Your task to perform on an android device: Search for vegetarian restaurants on Maps Image 0: 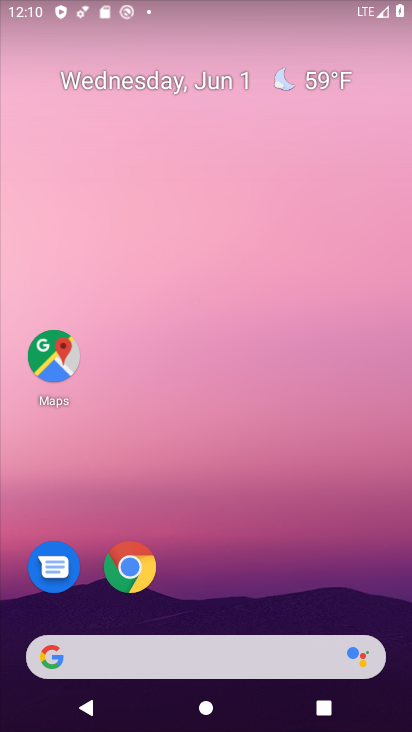
Step 0: click (47, 341)
Your task to perform on an android device: Search for vegetarian restaurants on Maps Image 1: 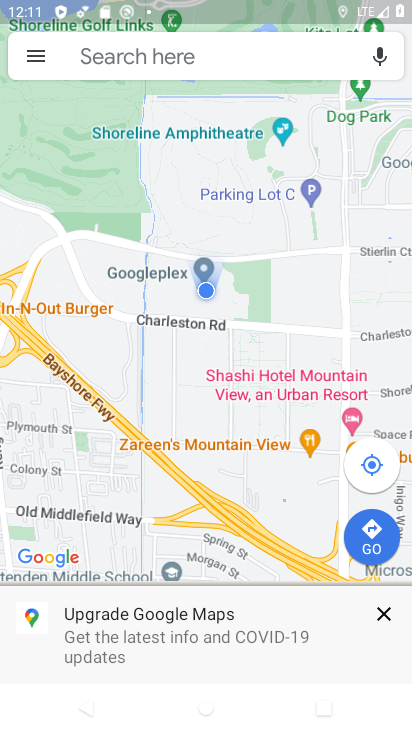
Step 1: click (137, 63)
Your task to perform on an android device: Search for vegetarian restaurants on Maps Image 2: 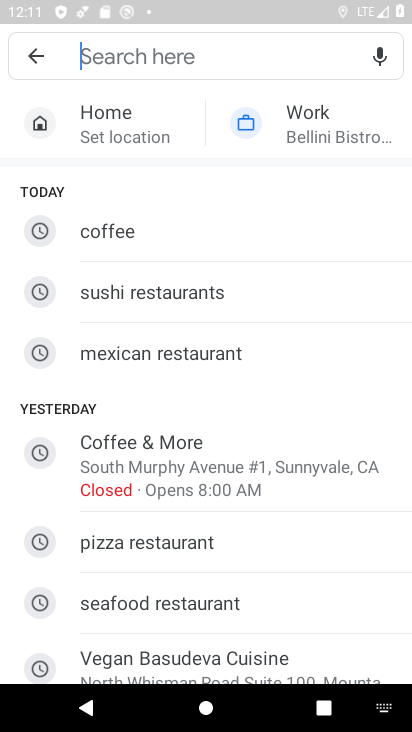
Step 2: drag from (288, 582) to (278, 631)
Your task to perform on an android device: Search for vegetarian restaurants on Maps Image 3: 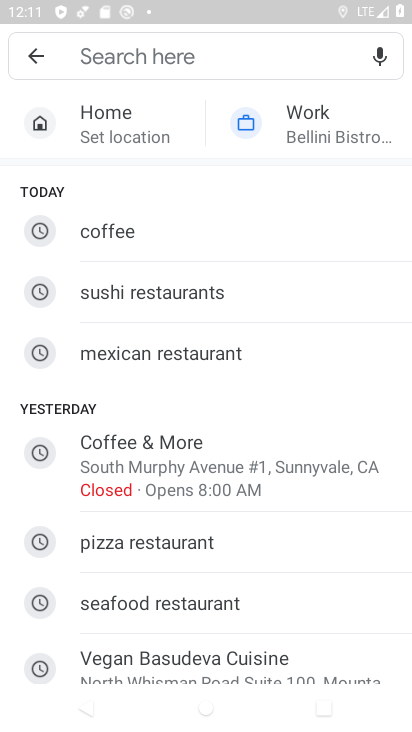
Step 3: click (195, 57)
Your task to perform on an android device: Search for vegetarian restaurants on Maps Image 4: 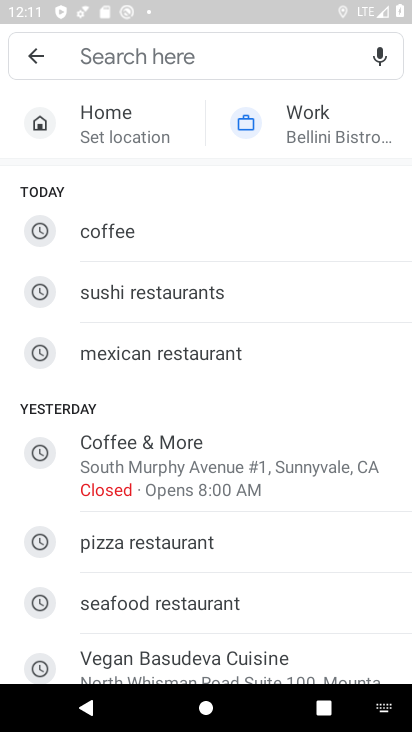
Step 4: type "vegetarian restaurants"
Your task to perform on an android device: Search for vegetarian restaurants on Maps Image 5: 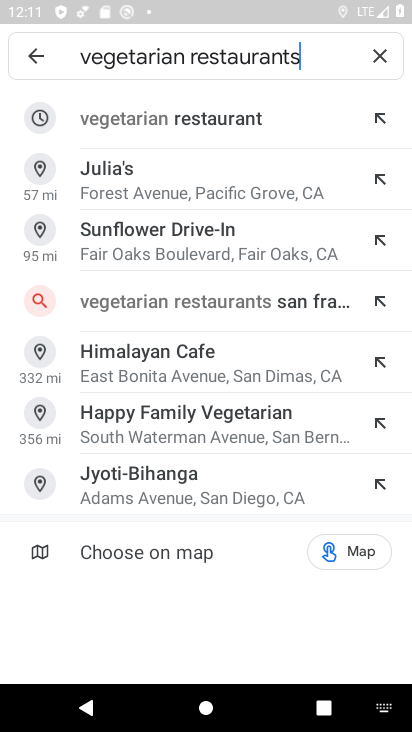
Step 5: click (199, 107)
Your task to perform on an android device: Search for vegetarian restaurants on Maps Image 6: 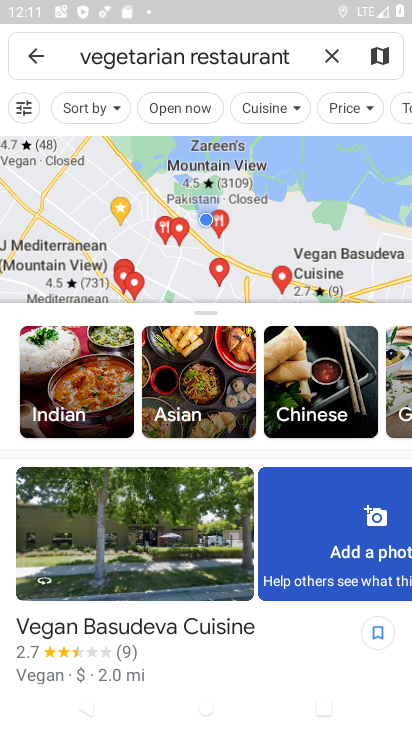
Step 6: task complete